Your task to perform on an android device: Go to Wikipedia Image 0: 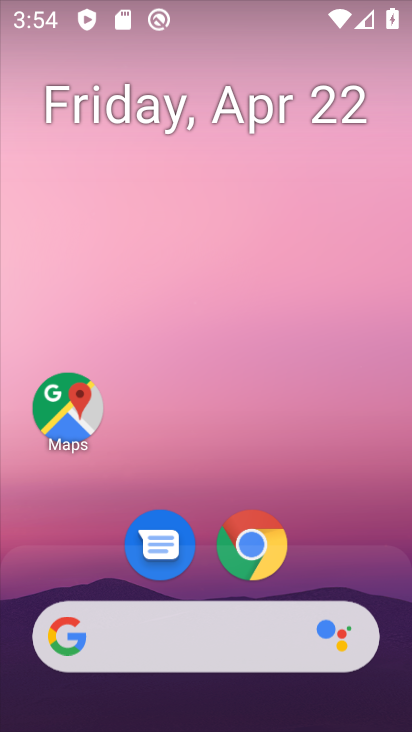
Step 0: drag from (326, 248) to (292, 0)
Your task to perform on an android device: Go to Wikipedia Image 1: 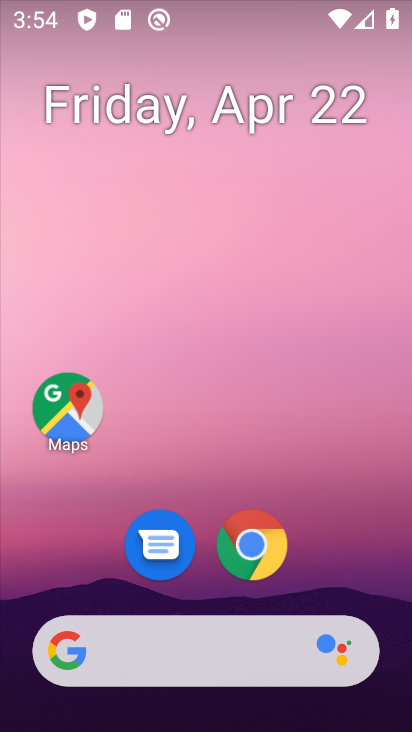
Step 1: drag from (359, 399) to (300, 44)
Your task to perform on an android device: Go to Wikipedia Image 2: 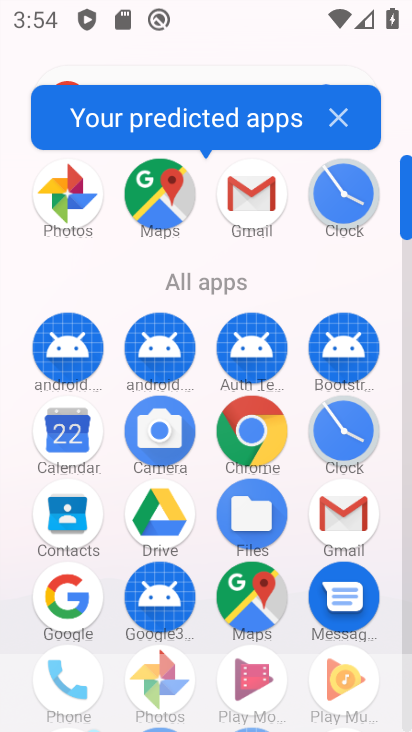
Step 2: click (254, 428)
Your task to perform on an android device: Go to Wikipedia Image 3: 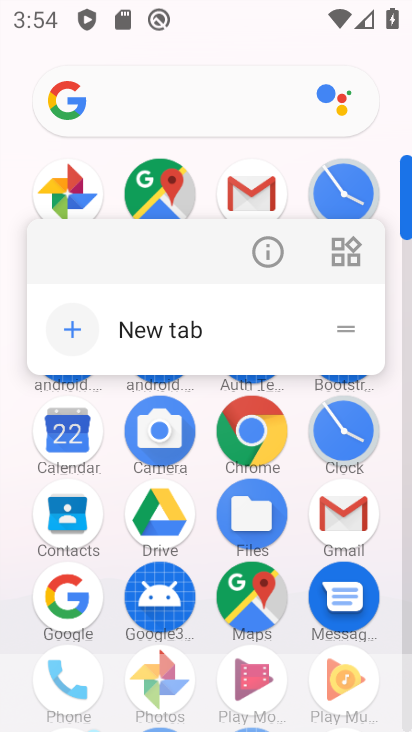
Step 3: click (254, 428)
Your task to perform on an android device: Go to Wikipedia Image 4: 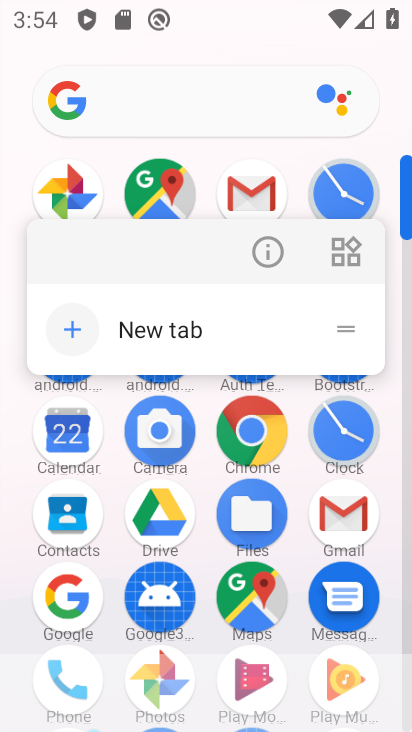
Step 4: click (254, 427)
Your task to perform on an android device: Go to Wikipedia Image 5: 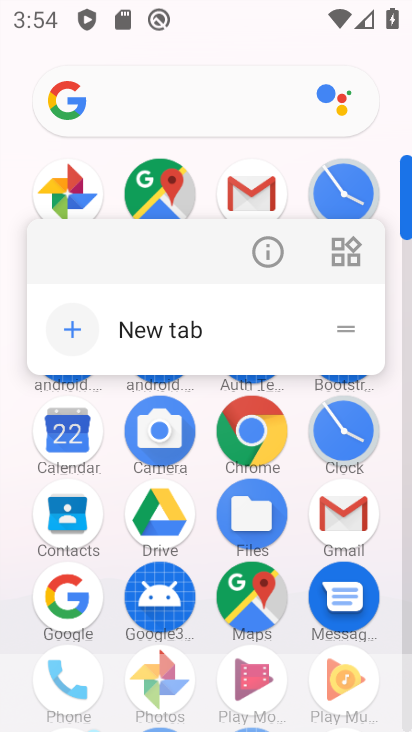
Step 5: click (254, 427)
Your task to perform on an android device: Go to Wikipedia Image 6: 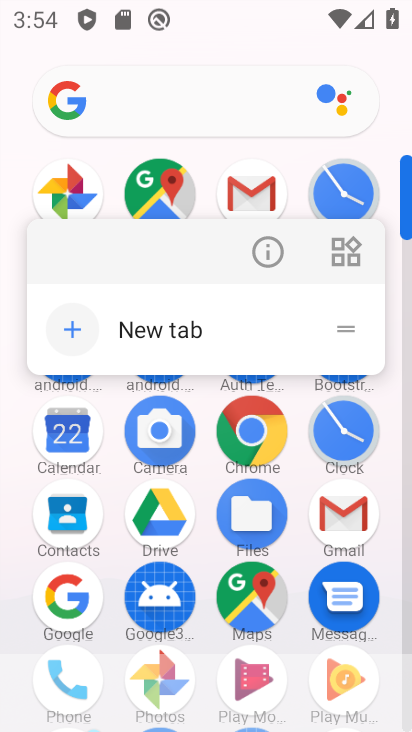
Step 6: click (254, 427)
Your task to perform on an android device: Go to Wikipedia Image 7: 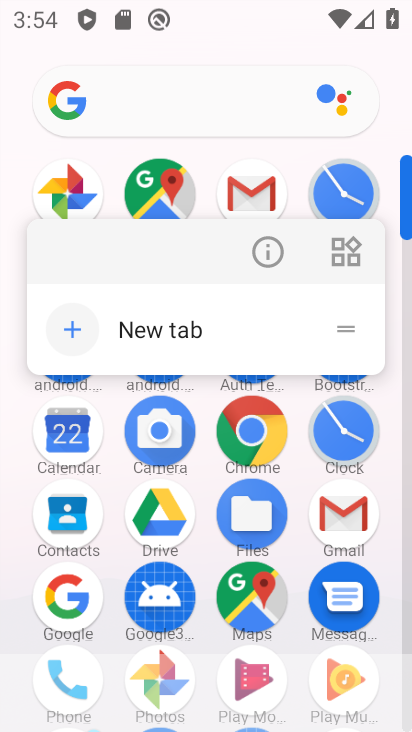
Step 7: click (254, 427)
Your task to perform on an android device: Go to Wikipedia Image 8: 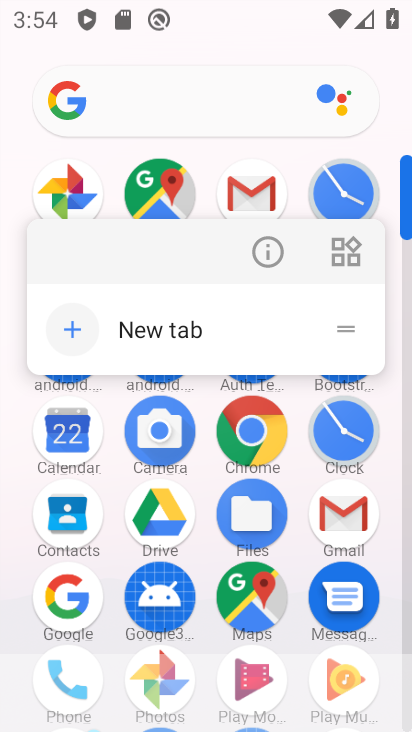
Step 8: click (254, 427)
Your task to perform on an android device: Go to Wikipedia Image 9: 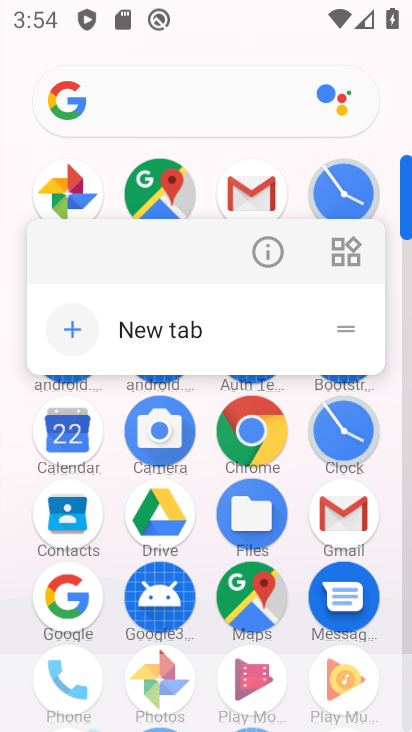
Step 9: click (254, 427)
Your task to perform on an android device: Go to Wikipedia Image 10: 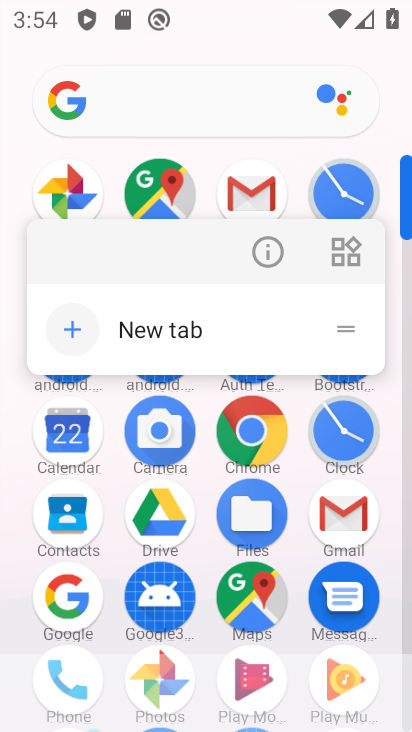
Step 10: click (254, 427)
Your task to perform on an android device: Go to Wikipedia Image 11: 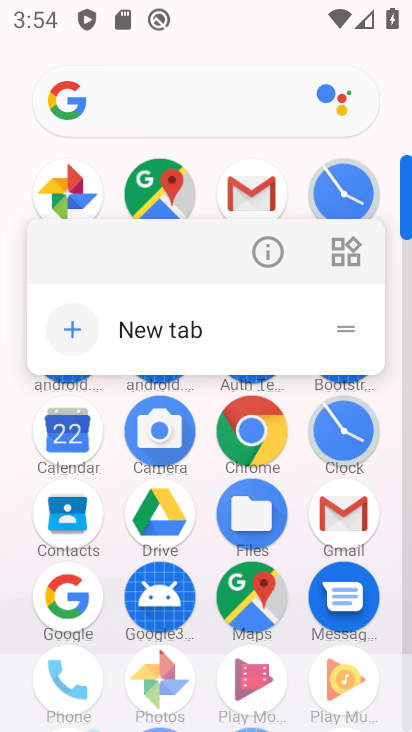
Step 11: click (254, 426)
Your task to perform on an android device: Go to Wikipedia Image 12: 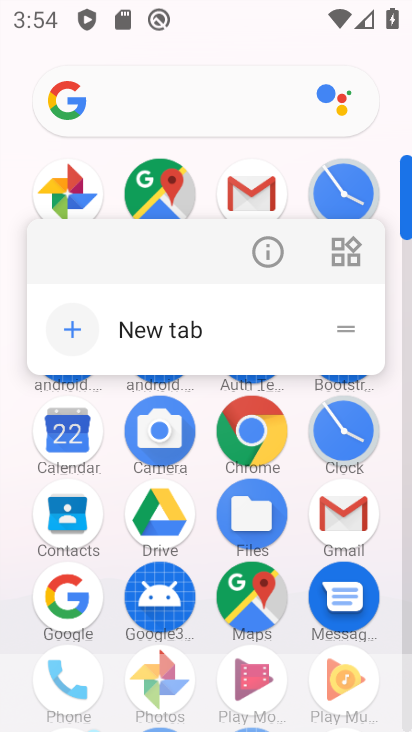
Step 12: click (254, 426)
Your task to perform on an android device: Go to Wikipedia Image 13: 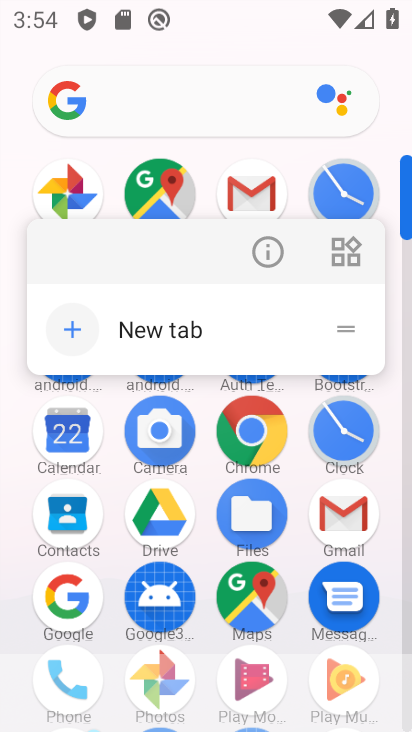
Step 13: click (254, 427)
Your task to perform on an android device: Go to Wikipedia Image 14: 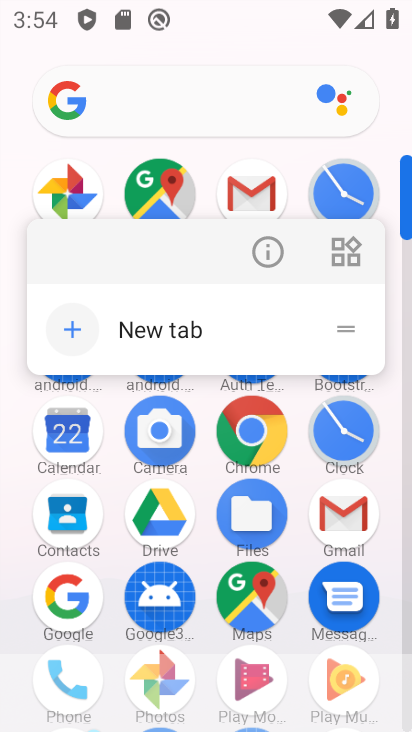
Step 14: click (254, 427)
Your task to perform on an android device: Go to Wikipedia Image 15: 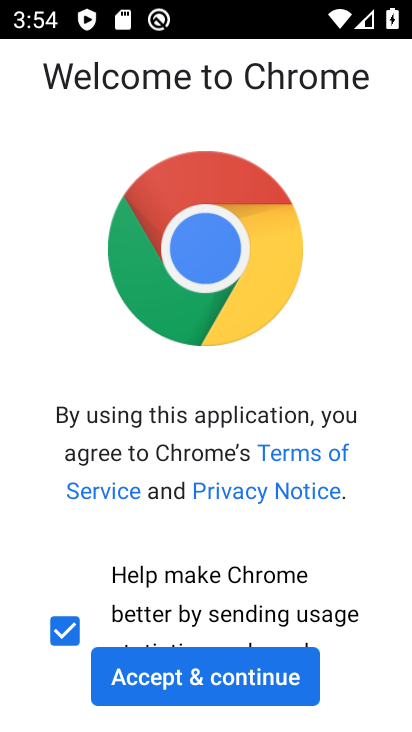
Step 15: click (168, 677)
Your task to perform on an android device: Go to Wikipedia Image 16: 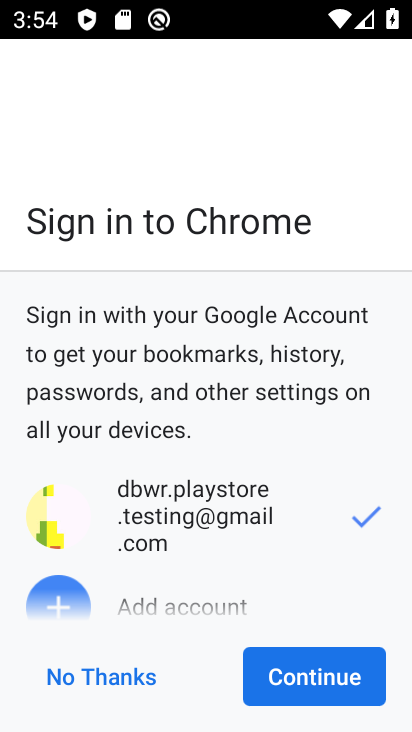
Step 16: click (107, 665)
Your task to perform on an android device: Go to Wikipedia Image 17: 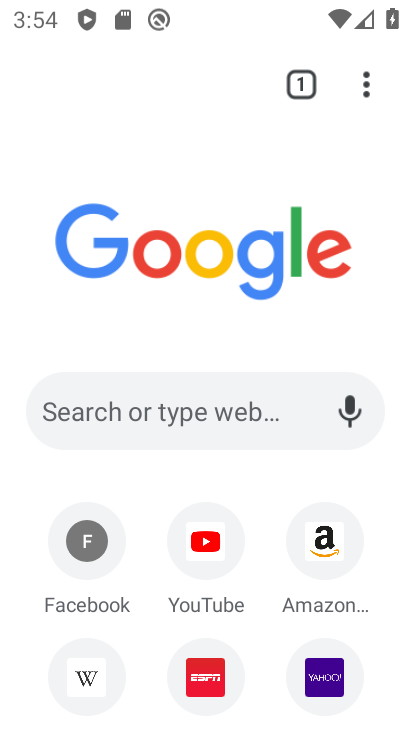
Step 17: drag from (389, 510) to (403, 101)
Your task to perform on an android device: Go to Wikipedia Image 18: 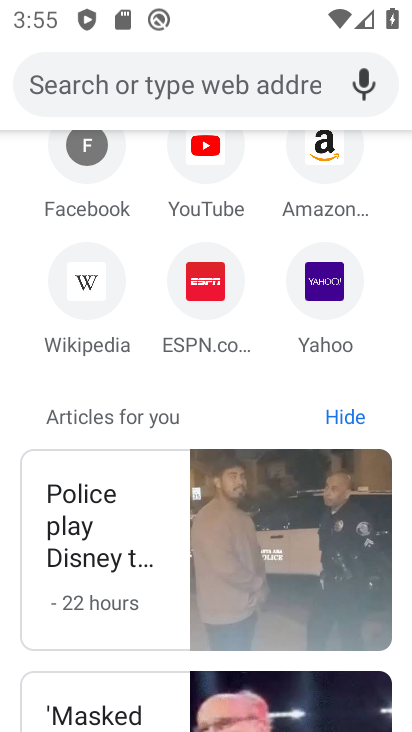
Step 18: click (102, 283)
Your task to perform on an android device: Go to Wikipedia Image 19: 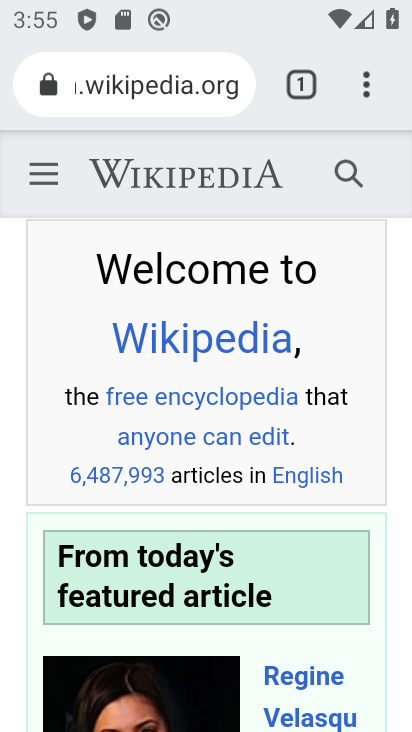
Step 19: task complete